Your task to perform on an android device: Open the web browser Image 0: 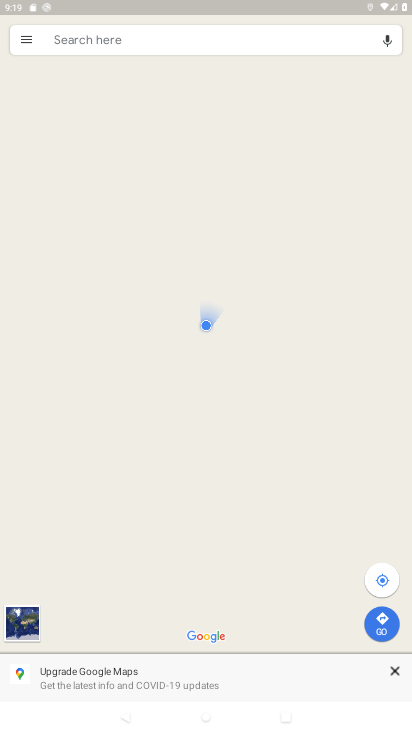
Step 0: press home button
Your task to perform on an android device: Open the web browser Image 1: 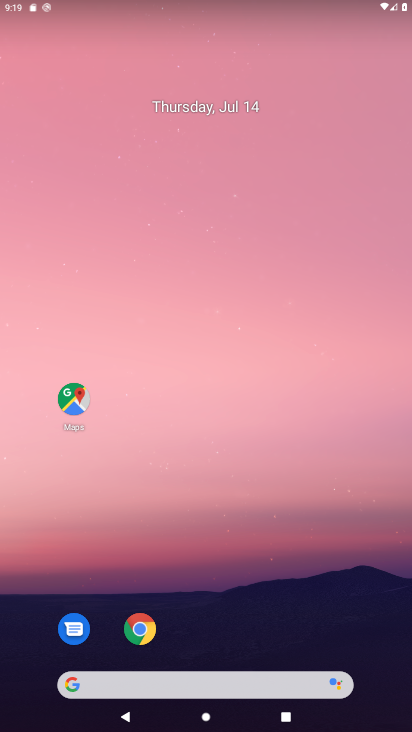
Step 1: drag from (257, 613) to (196, 172)
Your task to perform on an android device: Open the web browser Image 2: 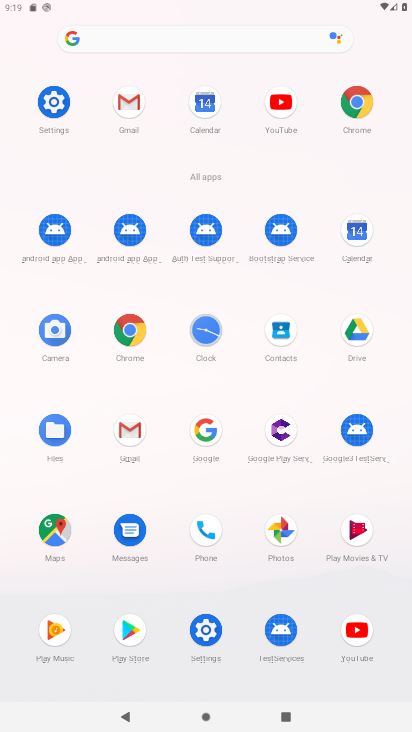
Step 2: click (129, 331)
Your task to perform on an android device: Open the web browser Image 3: 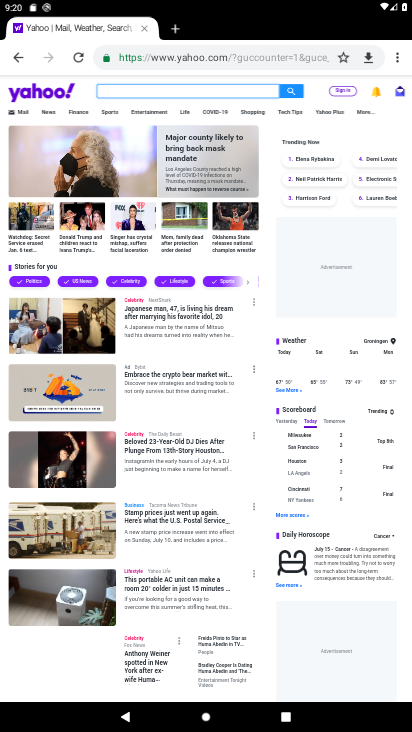
Step 3: drag from (396, 50) to (267, 46)
Your task to perform on an android device: Open the web browser Image 4: 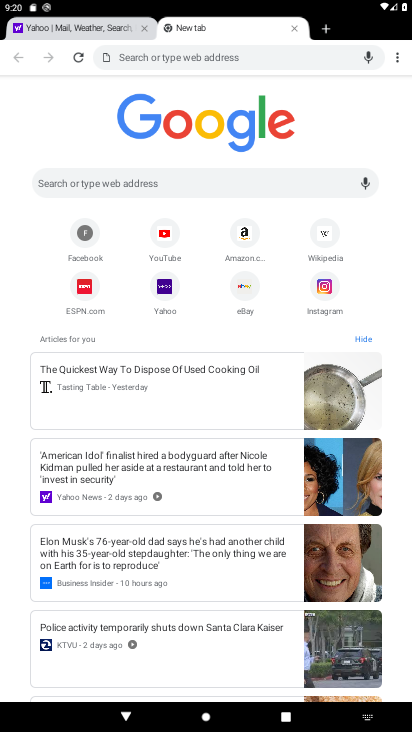
Step 4: click (183, 57)
Your task to perform on an android device: Open the web browser Image 5: 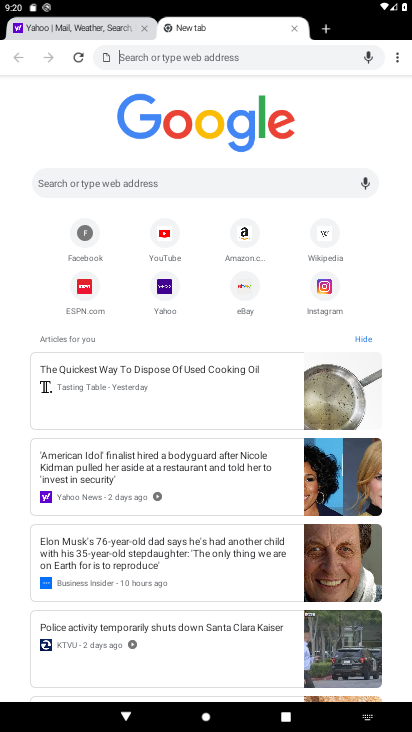
Step 5: type "web browser"
Your task to perform on an android device: Open the web browser Image 6: 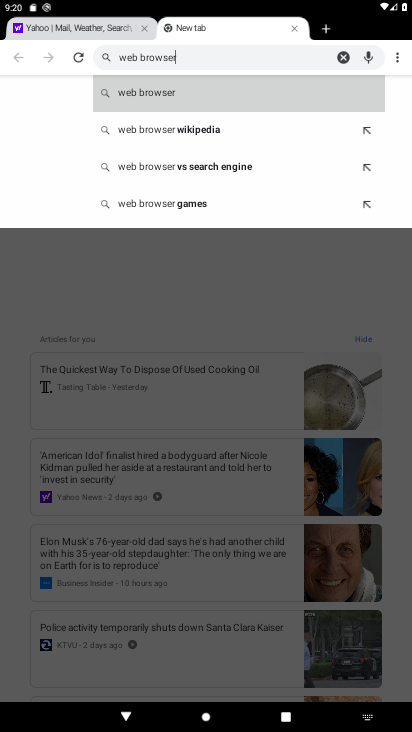
Step 6: click (129, 83)
Your task to perform on an android device: Open the web browser Image 7: 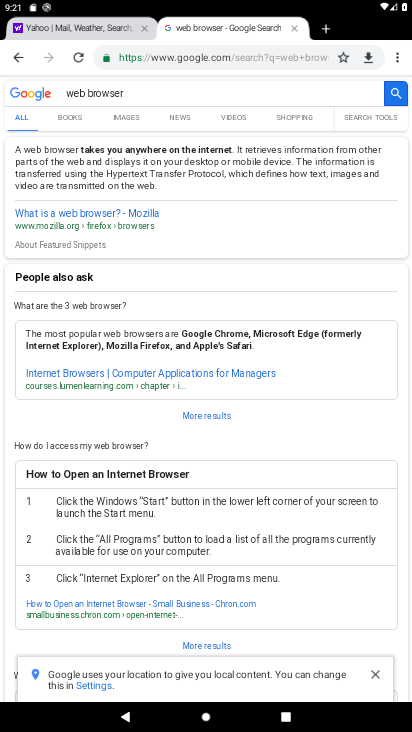
Step 7: click (39, 214)
Your task to perform on an android device: Open the web browser Image 8: 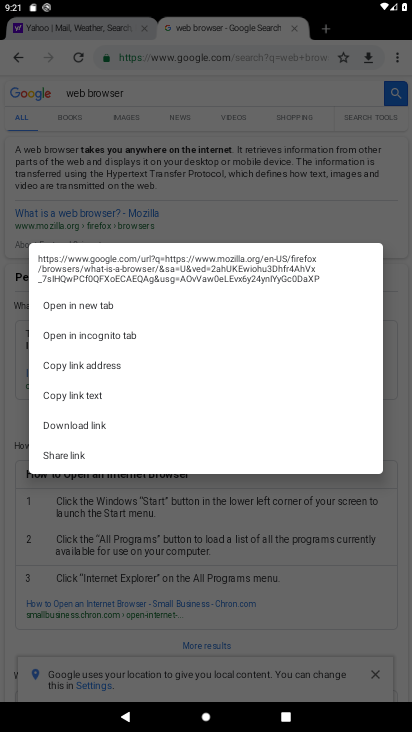
Step 8: click (306, 181)
Your task to perform on an android device: Open the web browser Image 9: 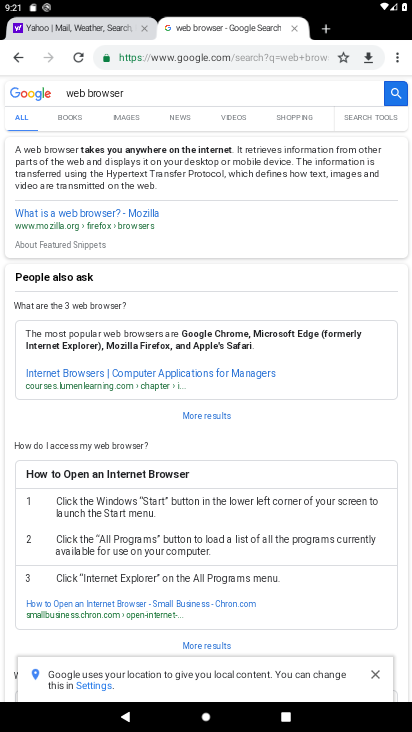
Step 9: task complete